Your task to perform on an android device: change your default location settings in chrome Image 0: 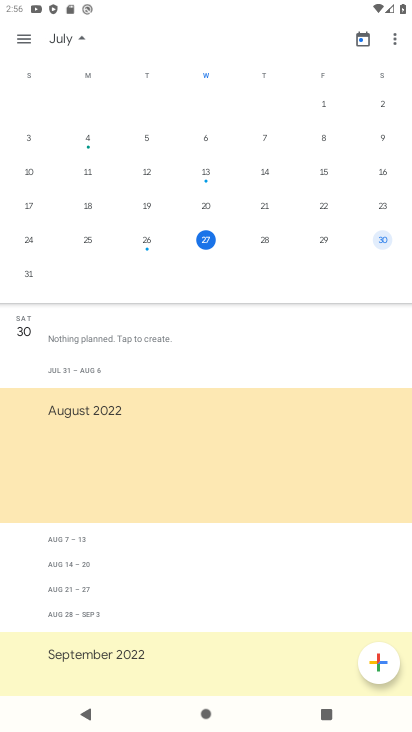
Step 0: press home button
Your task to perform on an android device: change your default location settings in chrome Image 1: 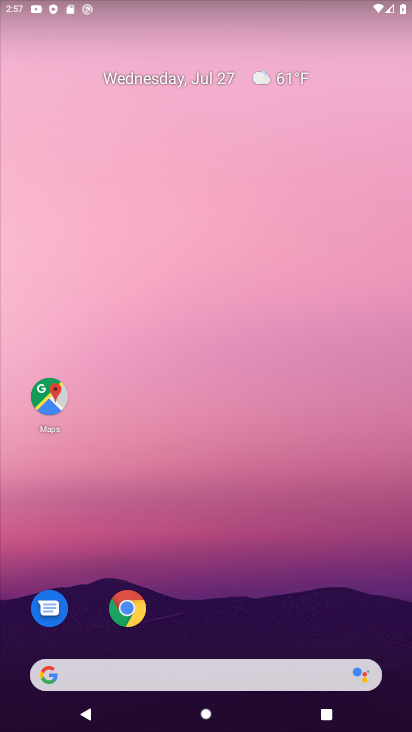
Step 1: click (118, 607)
Your task to perform on an android device: change your default location settings in chrome Image 2: 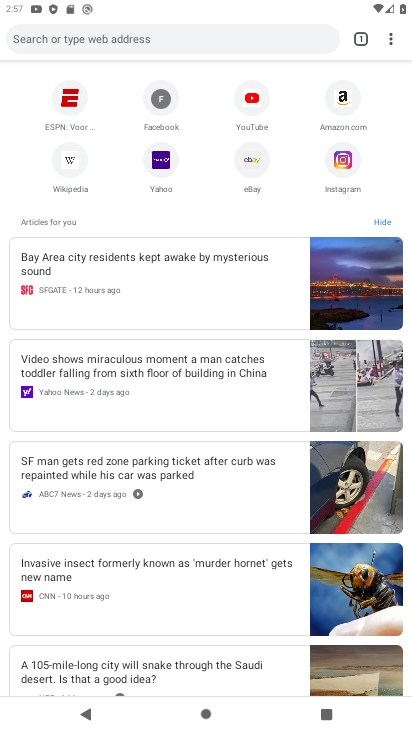
Step 2: click (393, 36)
Your task to perform on an android device: change your default location settings in chrome Image 3: 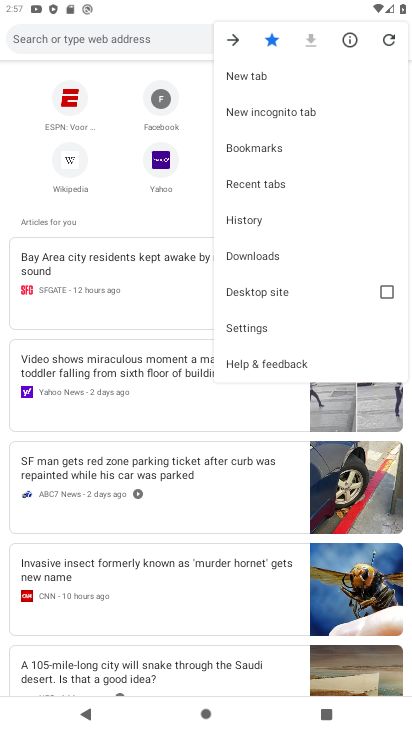
Step 3: click (275, 335)
Your task to perform on an android device: change your default location settings in chrome Image 4: 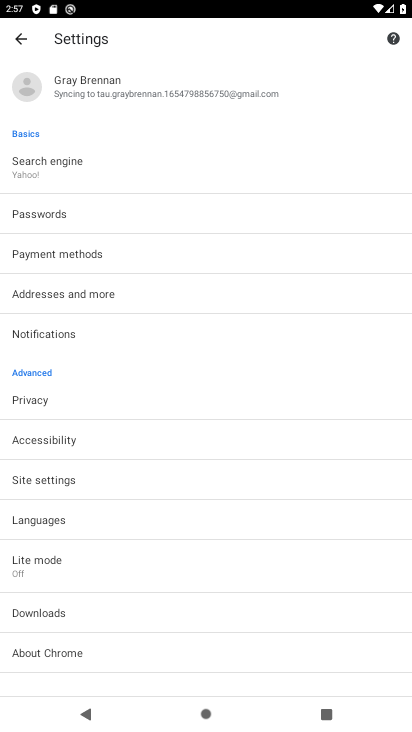
Step 4: click (59, 481)
Your task to perform on an android device: change your default location settings in chrome Image 5: 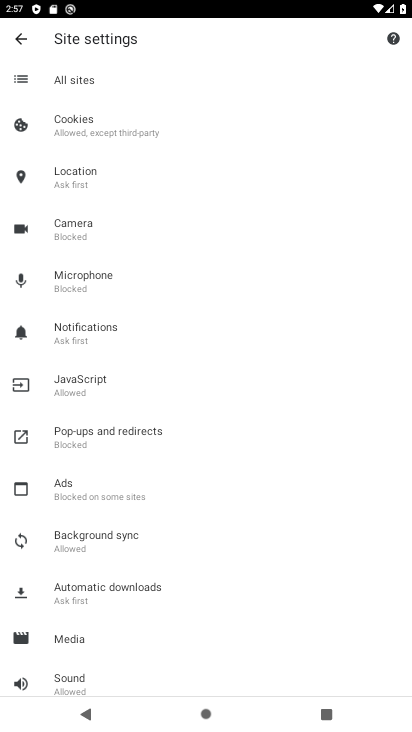
Step 5: click (145, 179)
Your task to perform on an android device: change your default location settings in chrome Image 6: 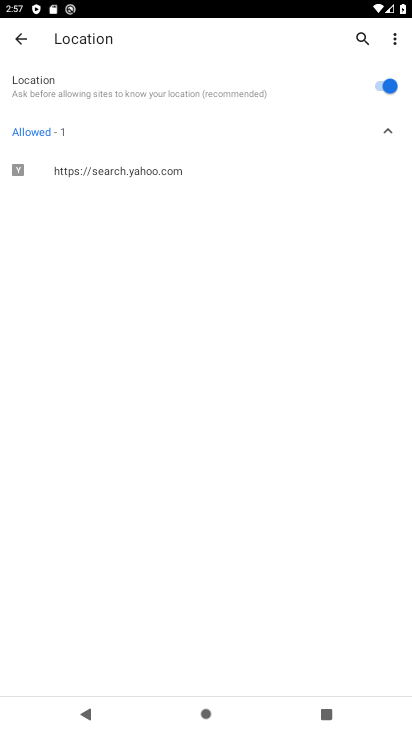
Step 6: click (374, 82)
Your task to perform on an android device: change your default location settings in chrome Image 7: 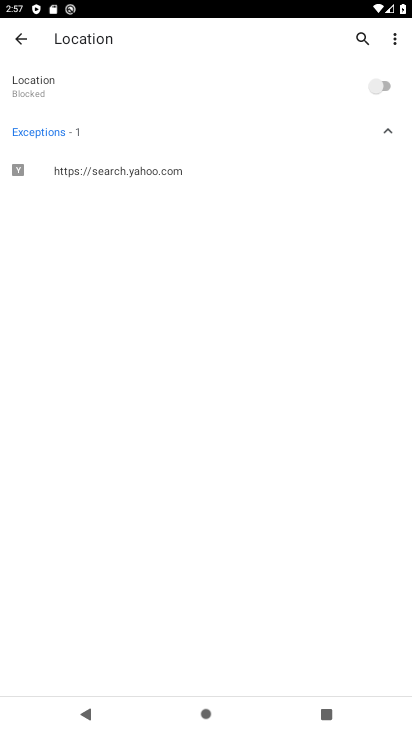
Step 7: task complete